Your task to perform on an android device: Open Chrome and go to settings Image 0: 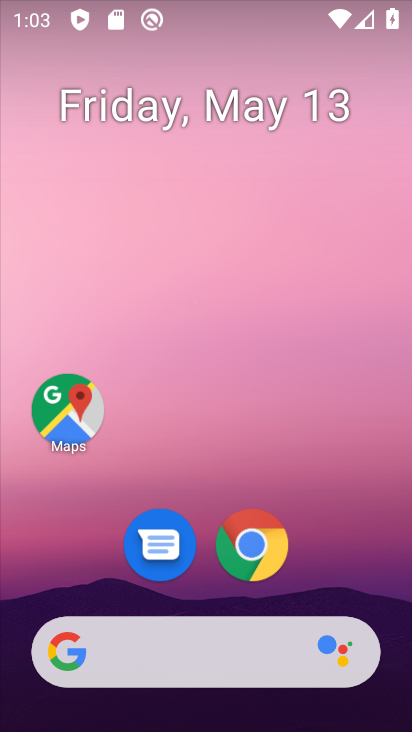
Step 0: click (262, 549)
Your task to perform on an android device: Open Chrome and go to settings Image 1: 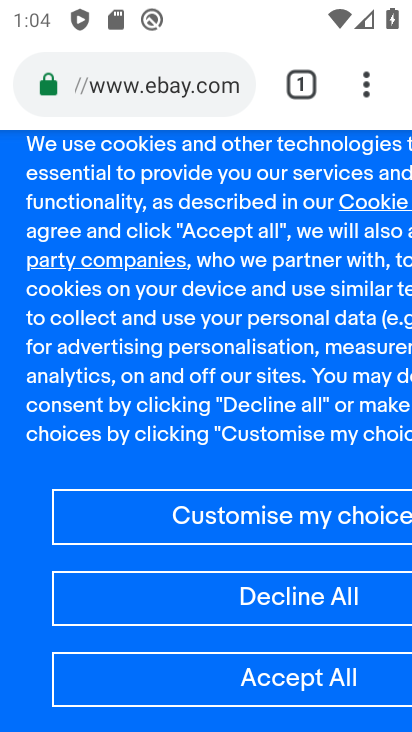
Step 1: click (382, 102)
Your task to perform on an android device: Open Chrome and go to settings Image 2: 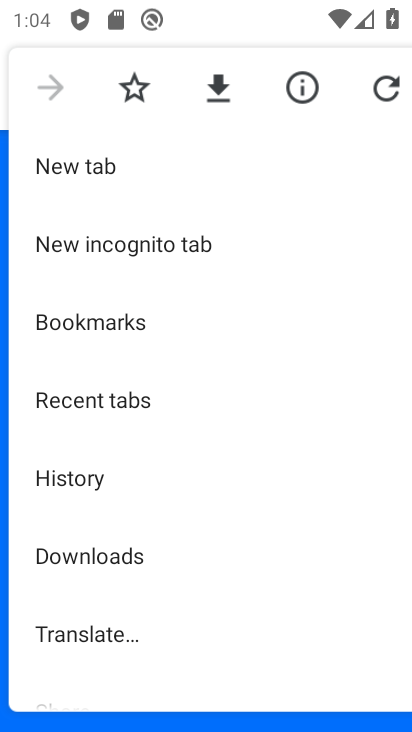
Step 2: drag from (290, 564) to (213, 319)
Your task to perform on an android device: Open Chrome and go to settings Image 3: 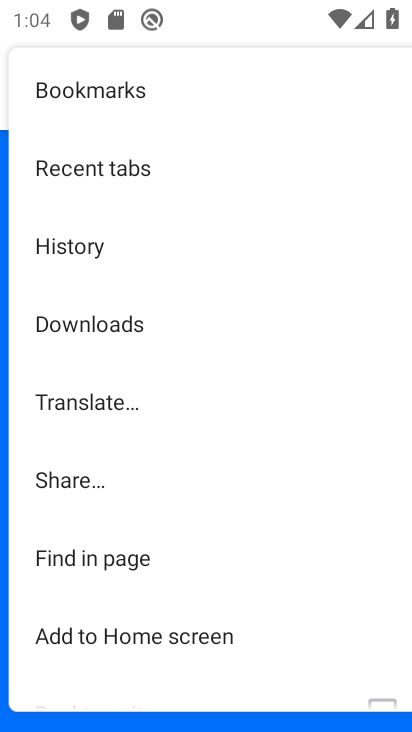
Step 3: drag from (258, 534) to (185, 373)
Your task to perform on an android device: Open Chrome and go to settings Image 4: 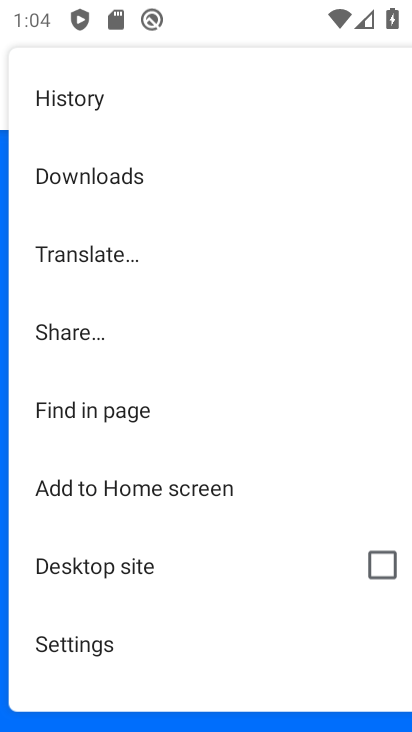
Step 4: click (129, 635)
Your task to perform on an android device: Open Chrome and go to settings Image 5: 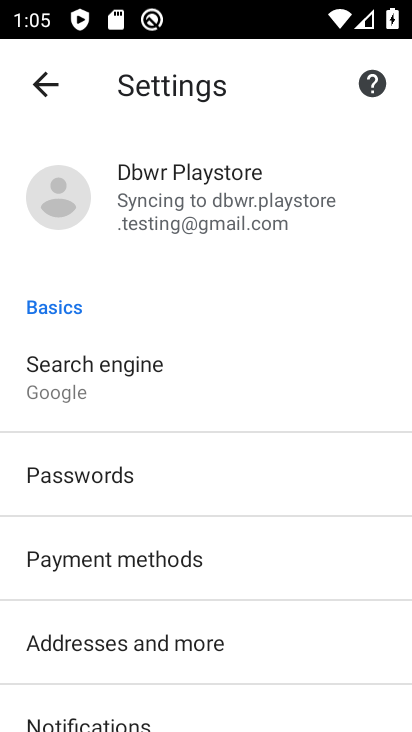
Step 5: task complete